Your task to perform on an android device: choose inbox layout in the gmail app Image 0: 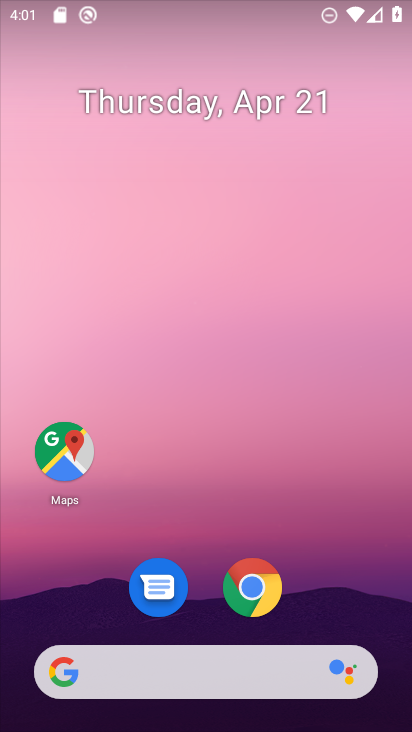
Step 0: drag from (379, 563) to (381, 5)
Your task to perform on an android device: choose inbox layout in the gmail app Image 1: 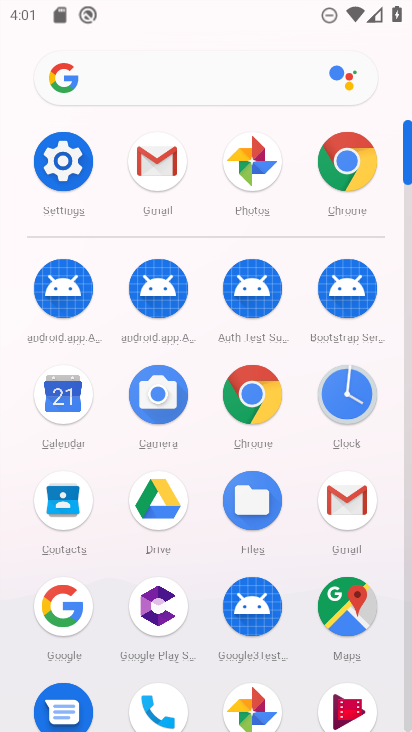
Step 1: click (157, 177)
Your task to perform on an android device: choose inbox layout in the gmail app Image 2: 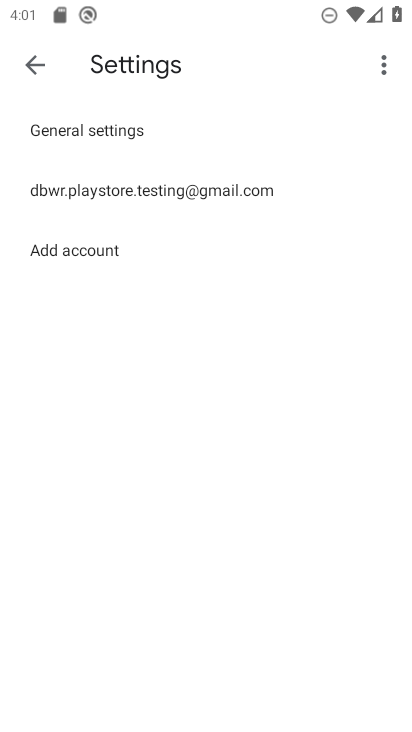
Step 2: click (96, 192)
Your task to perform on an android device: choose inbox layout in the gmail app Image 3: 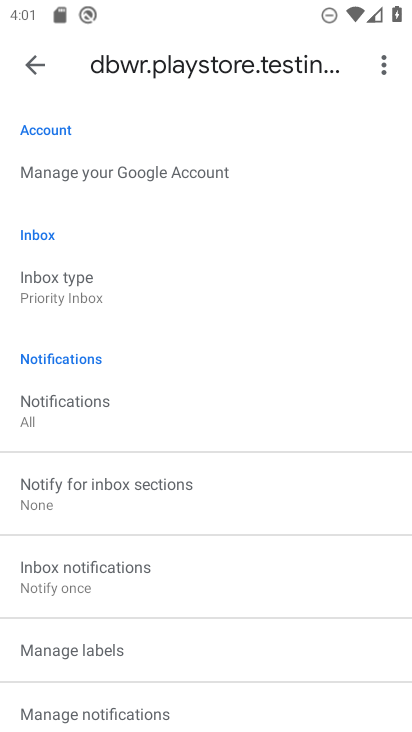
Step 3: click (77, 303)
Your task to perform on an android device: choose inbox layout in the gmail app Image 4: 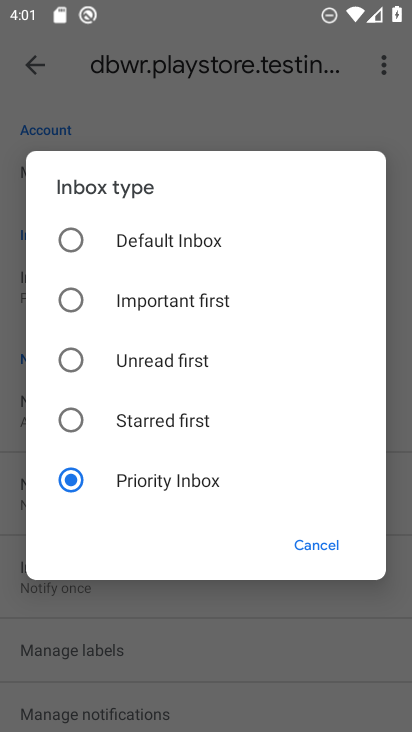
Step 4: click (68, 412)
Your task to perform on an android device: choose inbox layout in the gmail app Image 5: 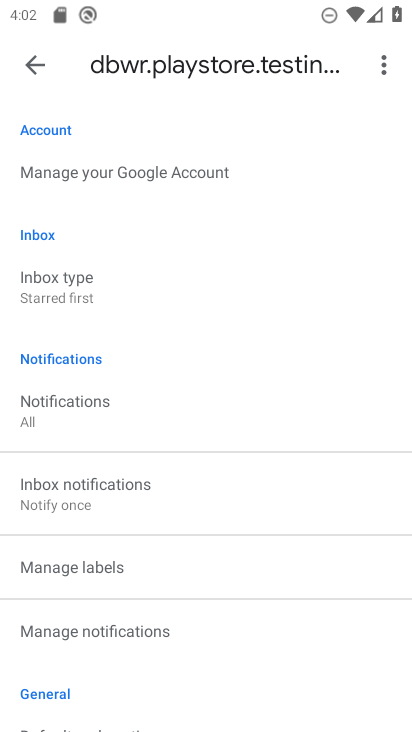
Step 5: task complete